Your task to perform on an android device: change the clock display to show seconds Image 0: 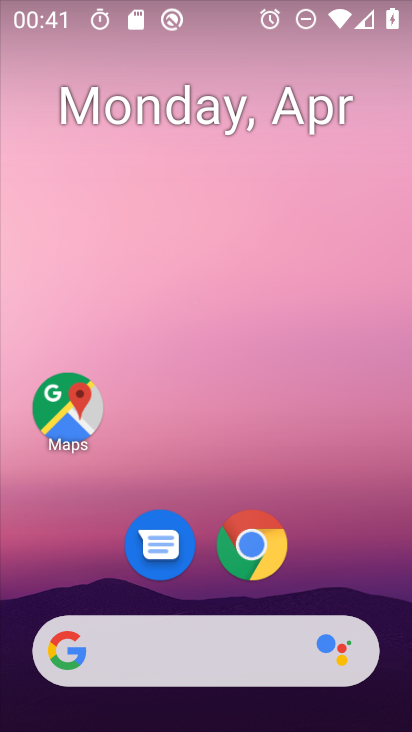
Step 0: drag from (382, 403) to (380, 108)
Your task to perform on an android device: change the clock display to show seconds Image 1: 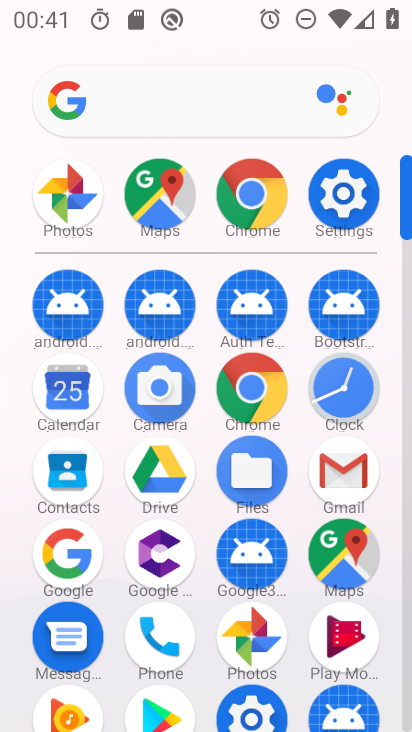
Step 1: click (351, 384)
Your task to perform on an android device: change the clock display to show seconds Image 2: 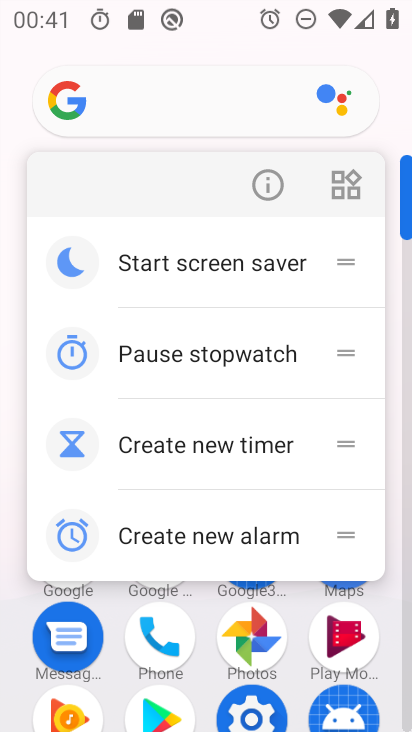
Step 2: press back button
Your task to perform on an android device: change the clock display to show seconds Image 3: 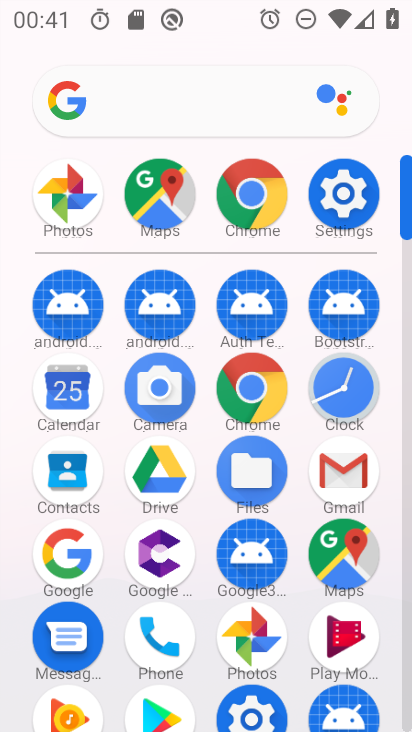
Step 3: drag from (351, 367) to (340, 411)
Your task to perform on an android device: change the clock display to show seconds Image 4: 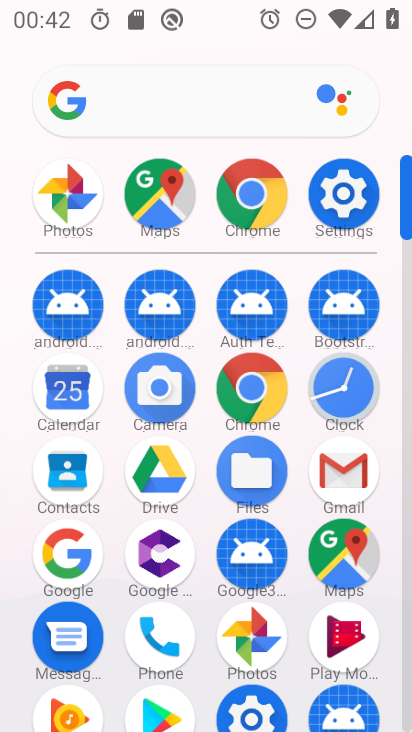
Step 4: click (355, 369)
Your task to perform on an android device: change the clock display to show seconds Image 5: 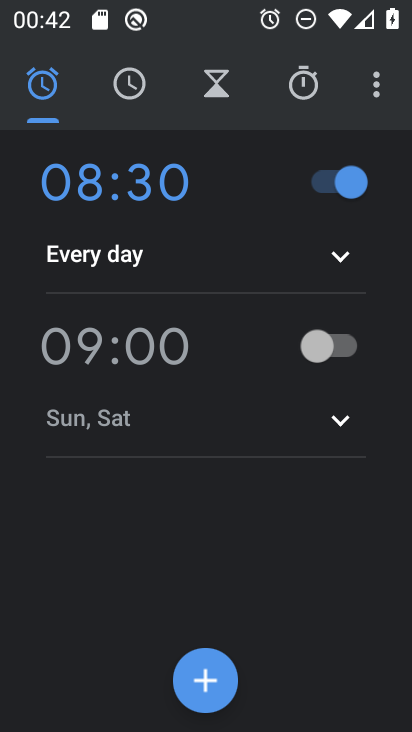
Step 5: click (366, 86)
Your task to perform on an android device: change the clock display to show seconds Image 6: 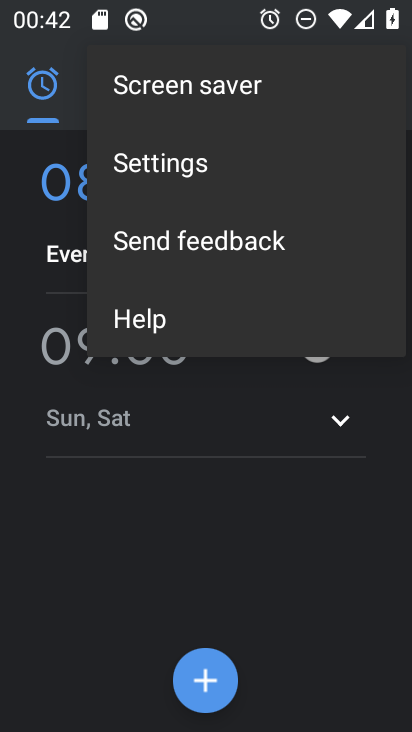
Step 6: click (197, 172)
Your task to perform on an android device: change the clock display to show seconds Image 7: 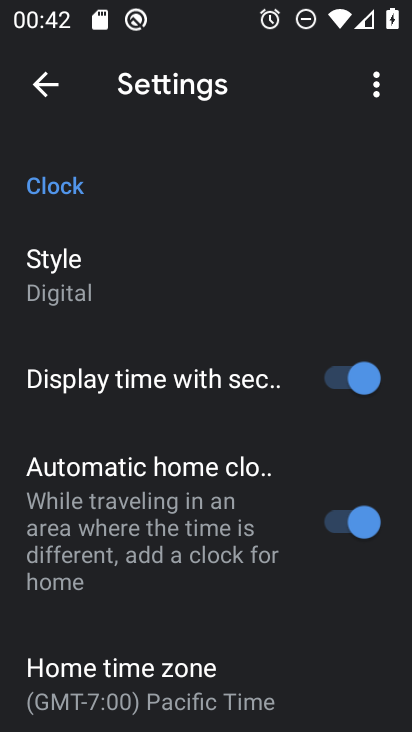
Step 7: task complete